Your task to perform on an android device: check battery use Image 0: 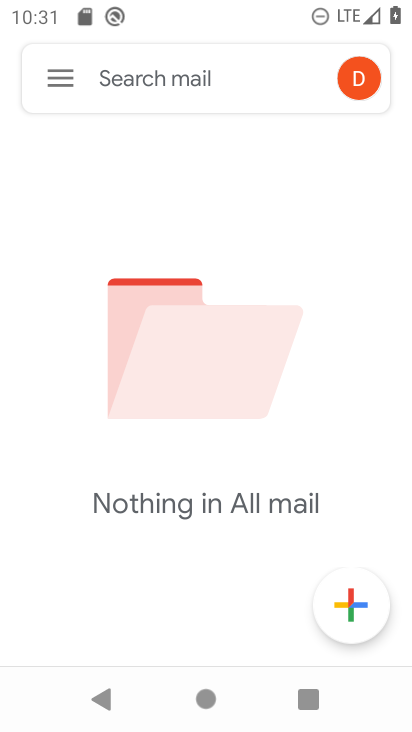
Step 0: press home button
Your task to perform on an android device: check battery use Image 1: 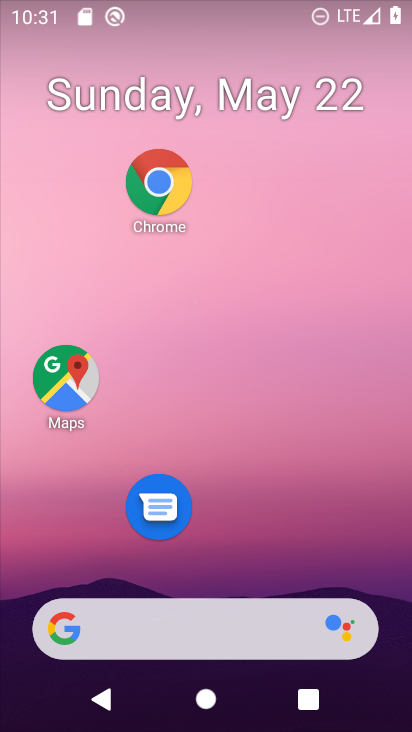
Step 1: drag from (239, 708) to (179, 132)
Your task to perform on an android device: check battery use Image 2: 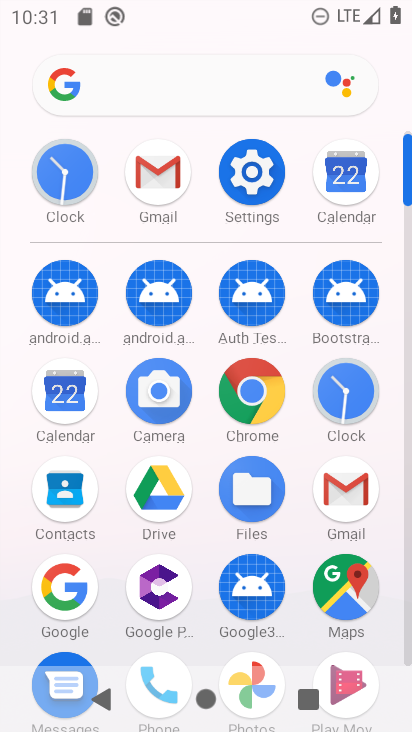
Step 2: click (265, 172)
Your task to perform on an android device: check battery use Image 3: 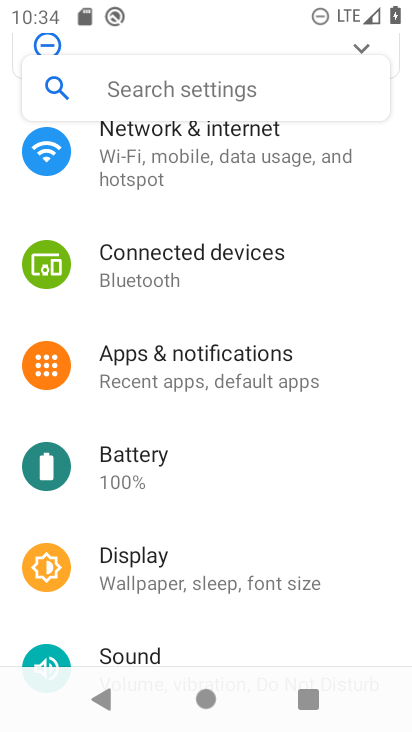
Step 3: click (172, 466)
Your task to perform on an android device: check battery use Image 4: 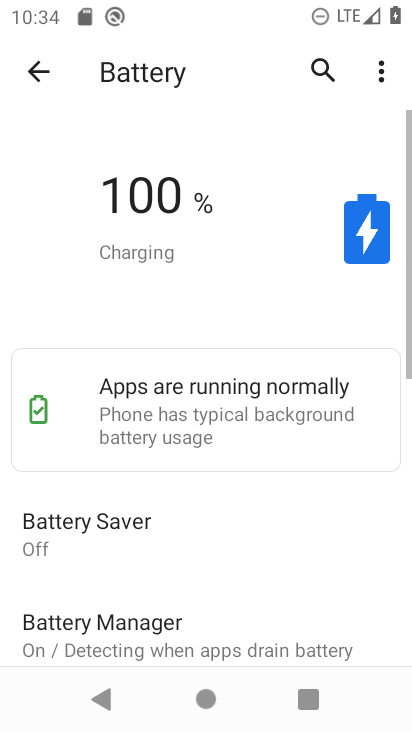
Step 4: click (375, 71)
Your task to perform on an android device: check battery use Image 5: 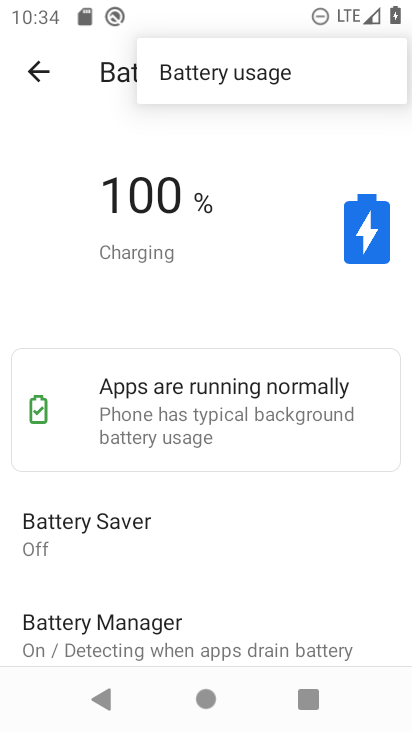
Step 5: click (333, 73)
Your task to perform on an android device: check battery use Image 6: 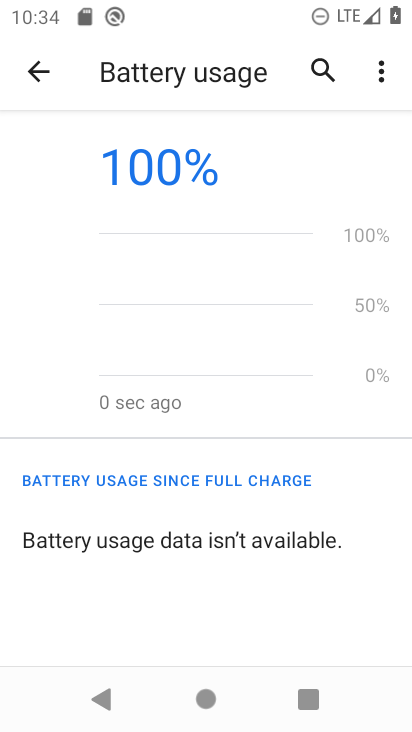
Step 6: task complete